Your task to perform on an android device: turn off location history Image 0: 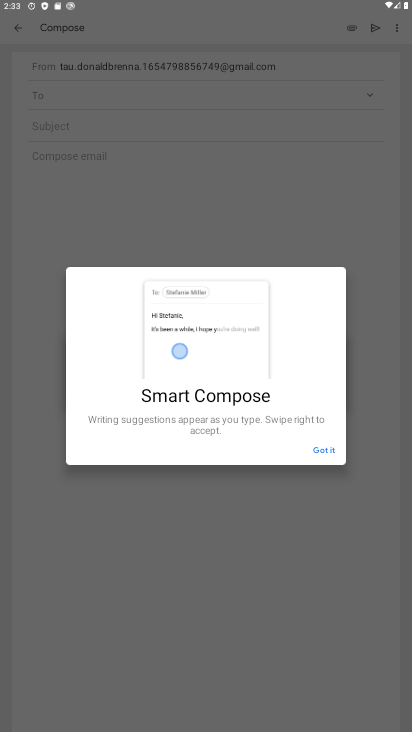
Step 0: press home button
Your task to perform on an android device: turn off location history Image 1: 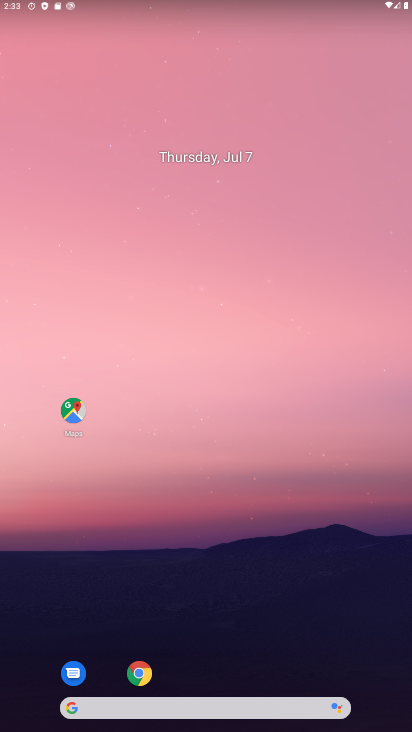
Step 1: drag from (212, 677) to (191, 160)
Your task to perform on an android device: turn off location history Image 2: 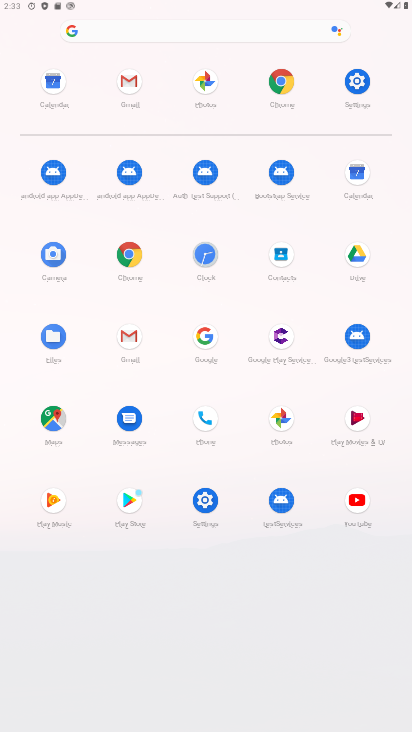
Step 2: click (343, 71)
Your task to perform on an android device: turn off location history Image 3: 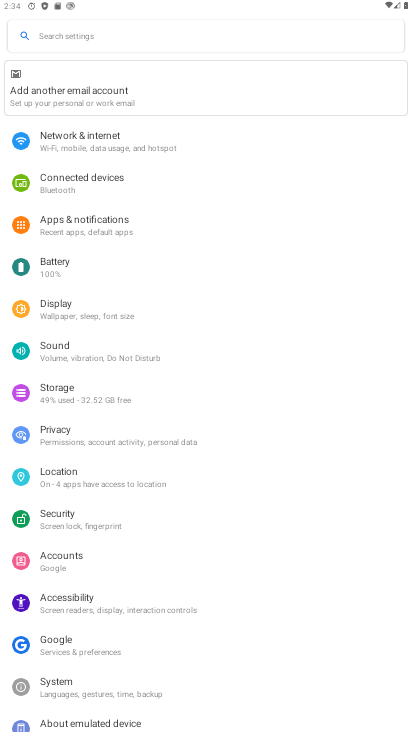
Step 3: click (55, 473)
Your task to perform on an android device: turn off location history Image 4: 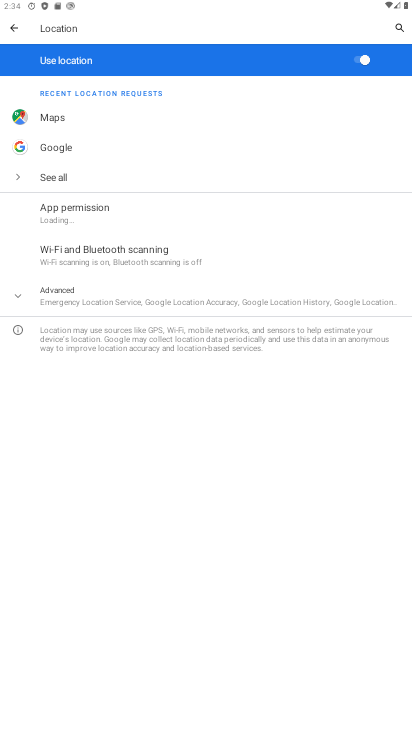
Step 4: click (85, 293)
Your task to perform on an android device: turn off location history Image 5: 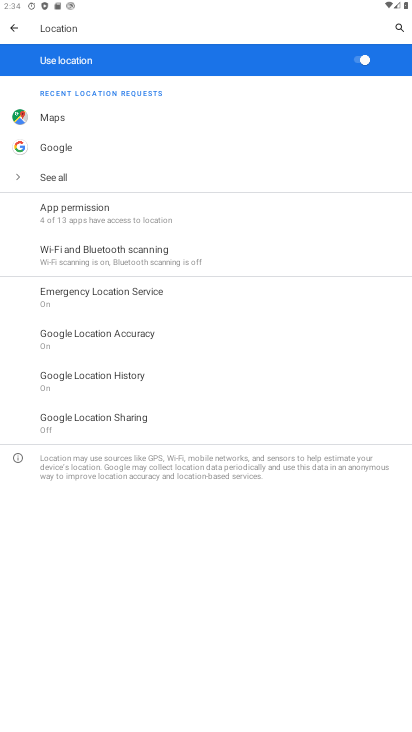
Step 5: click (77, 383)
Your task to perform on an android device: turn off location history Image 6: 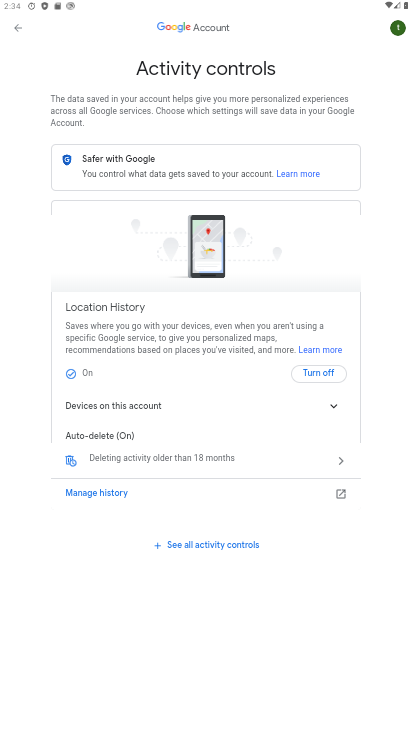
Step 6: click (313, 369)
Your task to perform on an android device: turn off location history Image 7: 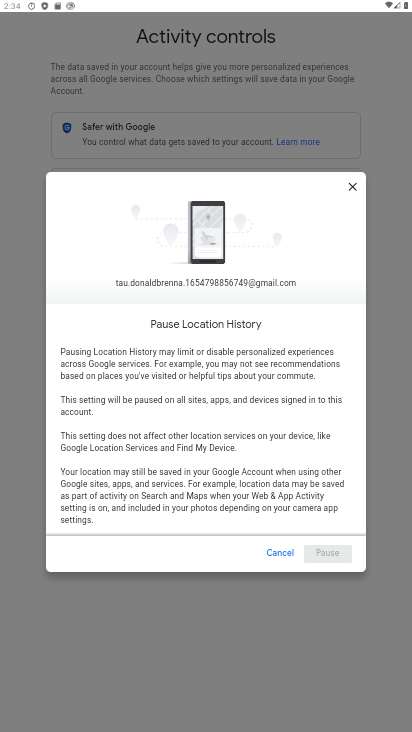
Step 7: drag from (273, 491) to (188, 88)
Your task to perform on an android device: turn off location history Image 8: 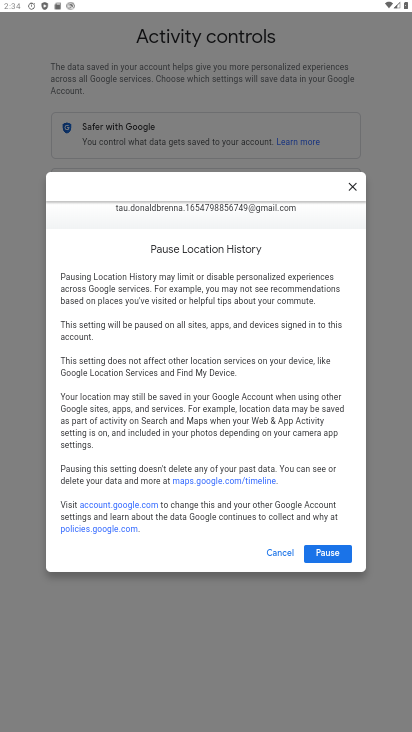
Step 8: click (330, 552)
Your task to perform on an android device: turn off location history Image 9: 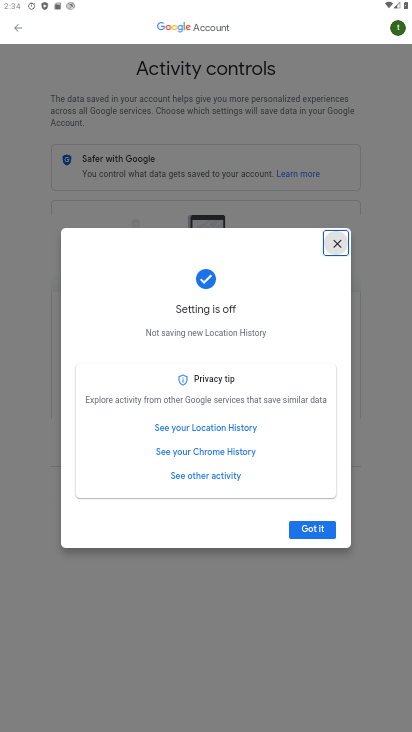
Step 9: click (328, 520)
Your task to perform on an android device: turn off location history Image 10: 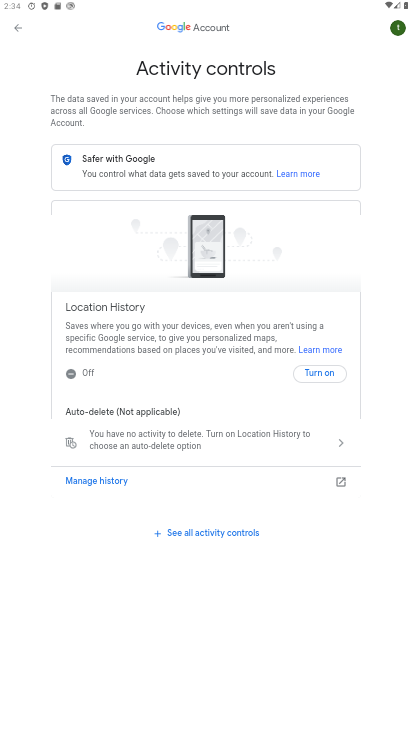
Step 10: task complete